Your task to perform on an android device: Go to Yahoo.com Image 0: 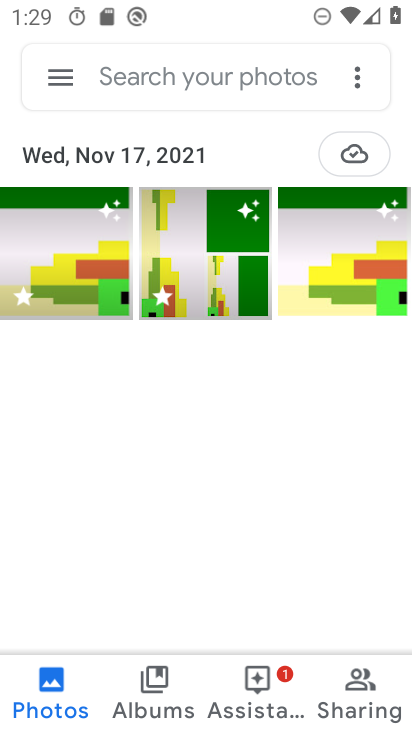
Step 0: press home button
Your task to perform on an android device: Go to Yahoo.com Image 1: 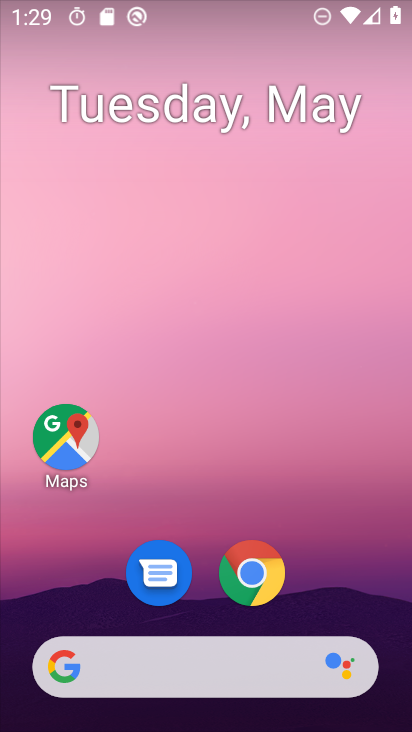
Step 1: click (276, 576)
Your task to perform on an android device: Go to Yahoo.com Image 2: 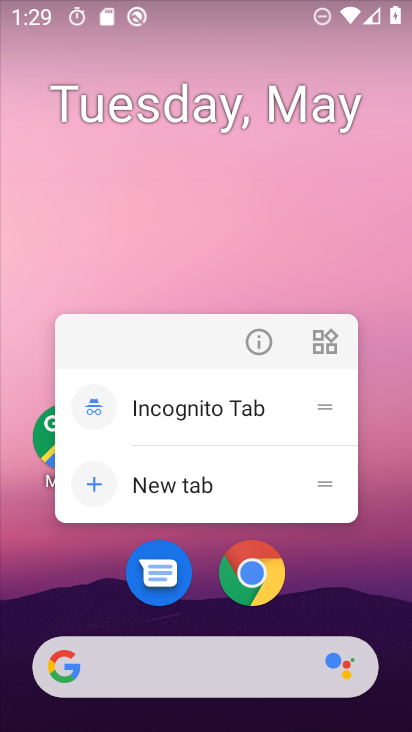
Step 2: click (277, 574)
Your task to perform on an android device: Go to Yahoo.com Image 3: 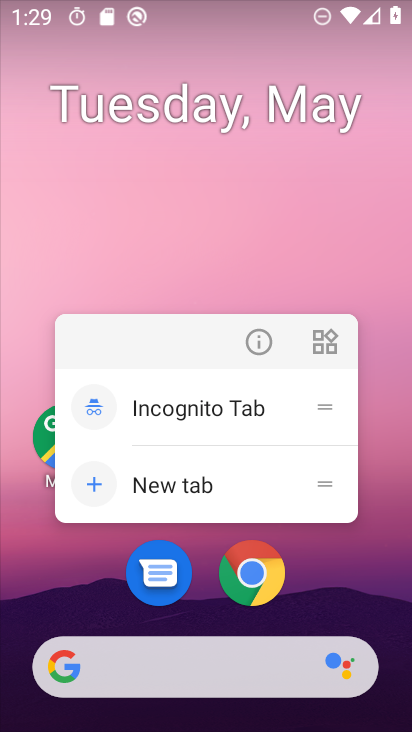
Step 3: click (336, 587)
Your task to perform on an android device: Go to Yahoo.com Image 4: 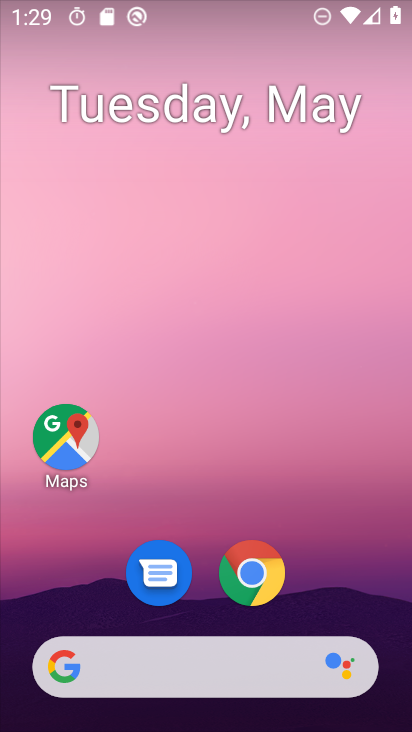
Step 4: drag from (345, 603) to (279, 53)
Your task to perform on an android device: Go to Yahoo.com Image 5: 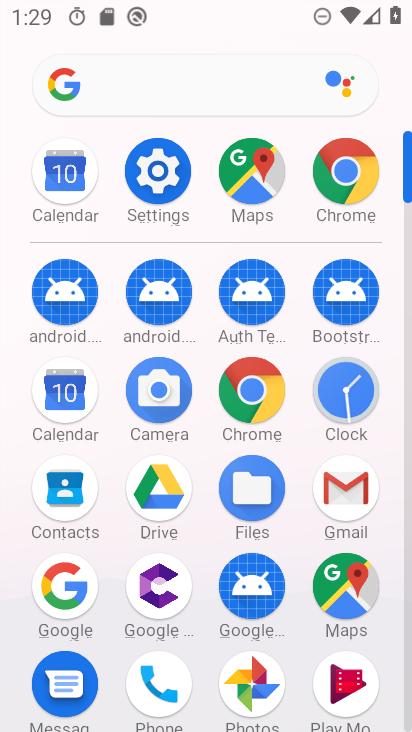
Step 5: click (345, 197)
Your task to perform on an android device: Go to Yahoo.com Image 6: 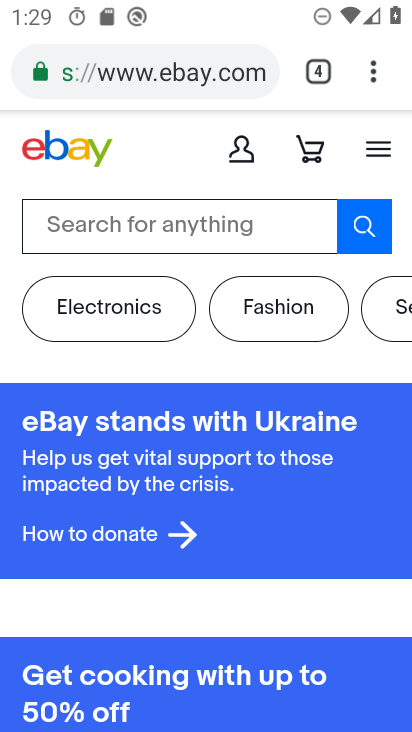
Step 6: click (223, 71)
Your task to perform on an android device: Go to Yahoo.com Image 7: 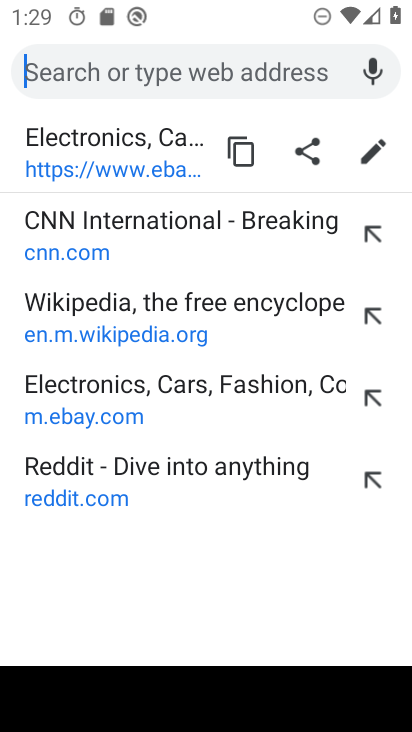
Step 7: type "yahoo.com"
Your task to perform on an android device: Go to Yahoo.com Image 8: 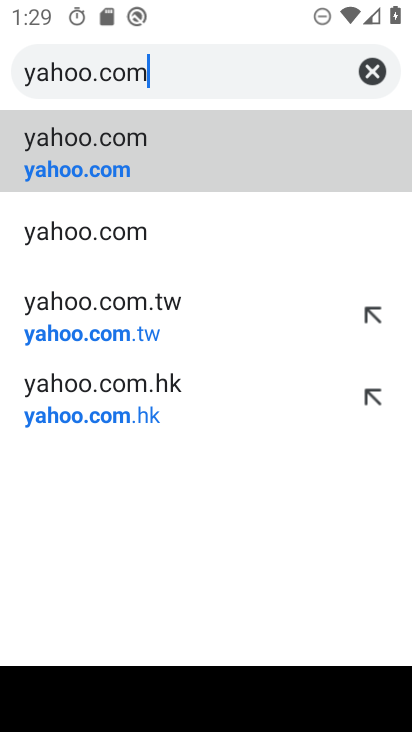
Step 8: click (126, 165)
Your task to perform on an android device: Go to Yahoo.com Image 9: 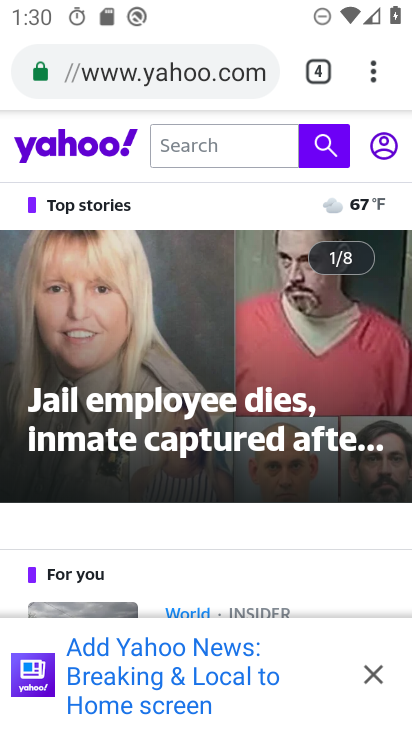
Step 9: task complete